Your task to perform on an android device: move an email to a new category in the gmail app Image 0: 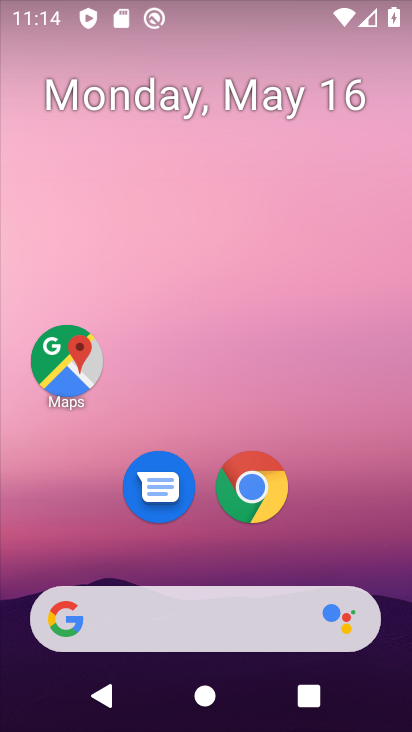
Step 0: drag from (45, 542) to (279, 69)
Your task to perform on an android device: move an email to a new category in the gmail app Image 1: 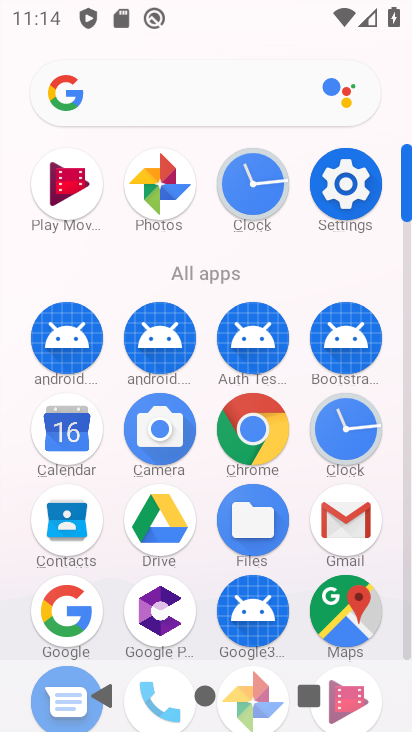
Step 1: drag from (101, 655) to (139, 5)
Your task to perform on an android device: move an email to a new category in the gmail app Image 2: 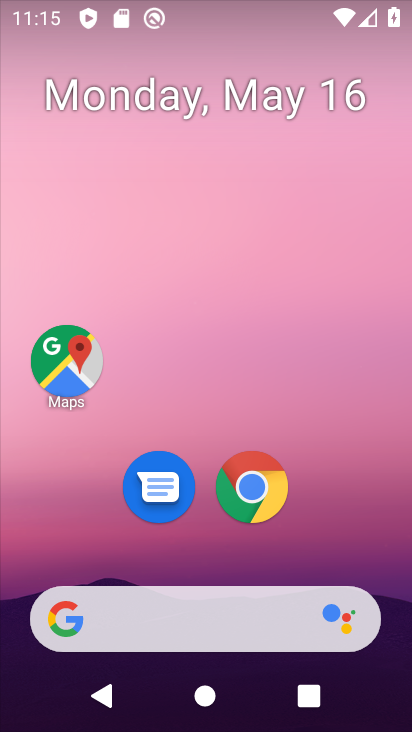
Step 2: drag from (60, 561) to (304, 29)
Your task to perform on an android device: move an email to a new category in the gmail app Image 3: 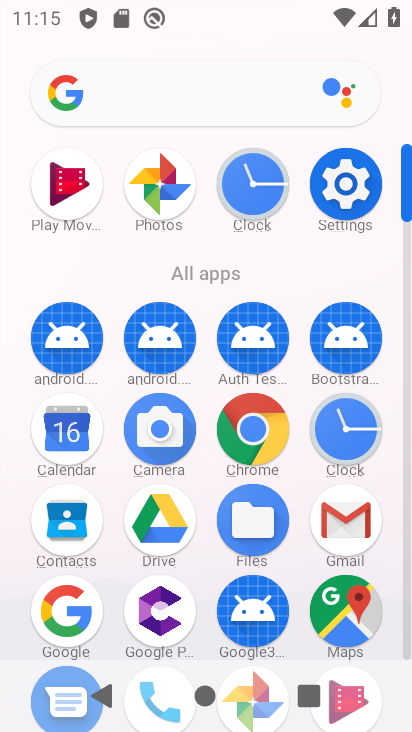
Step 3: click (343, 524)
Your task to perform on an android device: move an email to a new category in the gmail app Image 4: 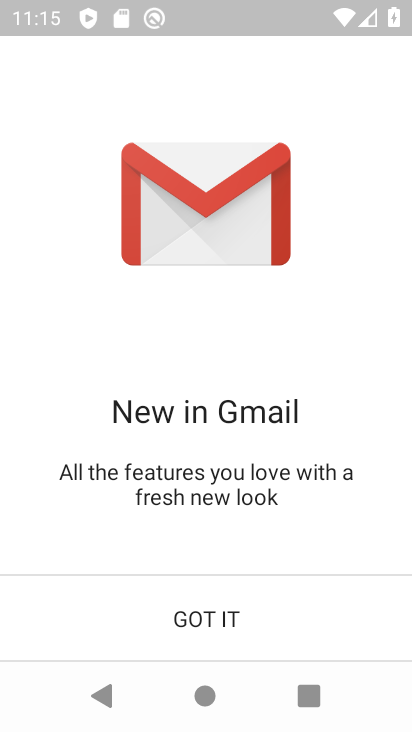
Step 4: click (189, 634)
Your task to perform on an android device: move an email to a new category in the gmail app Image 5: 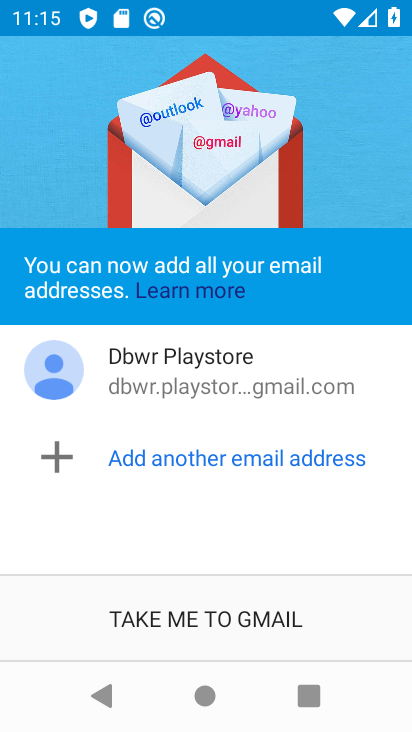
Step 5: click (150, 604)
Your task to perform on an android device: move an email to a new category in the gmail app Image 6: 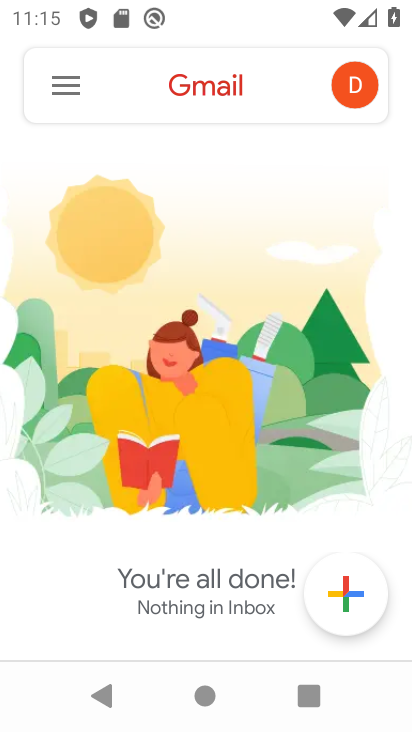
Step 6: click (50, 70)
Your task to perform on an android device: move an email to a new category in the gmail app Image 7: 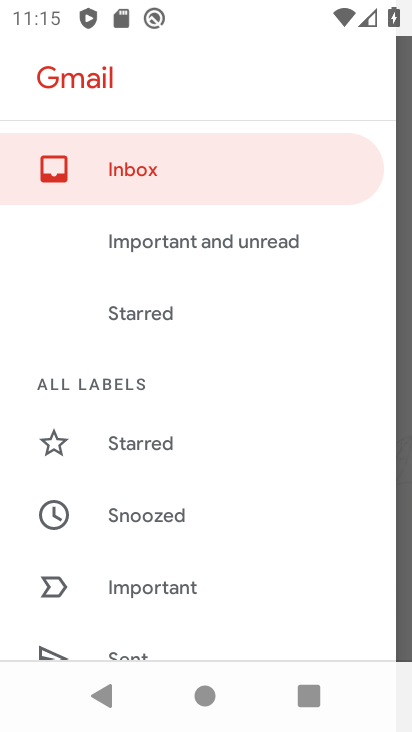
Step 7: drag from (27, 543) to (248, 145)
Your task to perform on an android device: move an email to a new category in the gmail app Image 8: 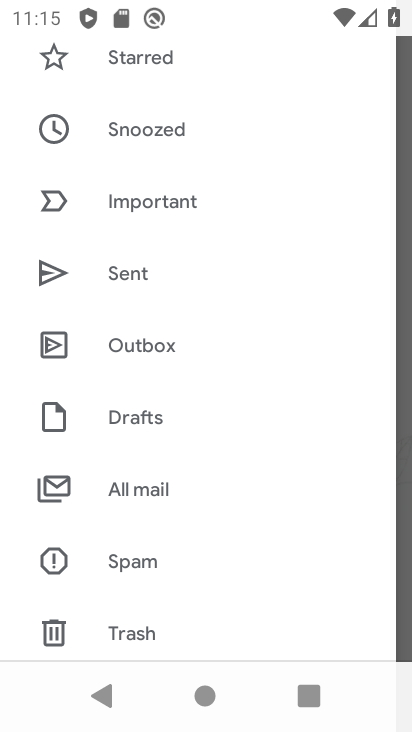
Step 8: click (180, 492)
Your task to perform on an android device: move an email to a new category in the gmail app Image 9: 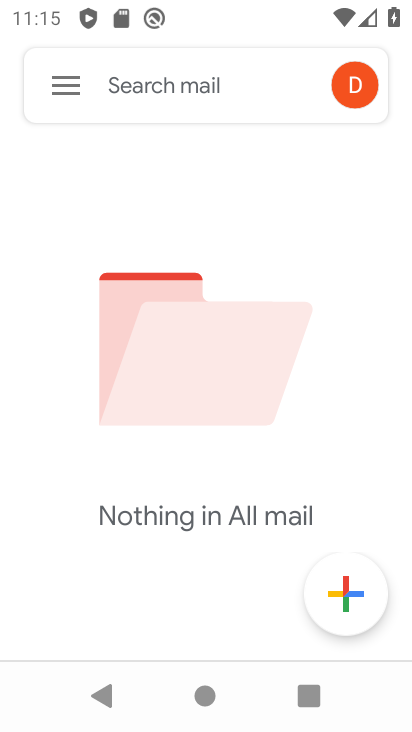
Step 9: task complete